Your task to perform on an android device: refresh tabs in the chrome app Image 0: 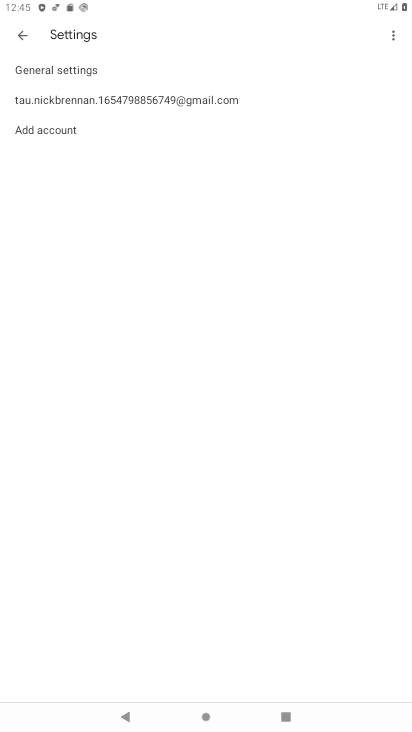
Step 0: press home button
Your task to perform on an android device: refresh tabs in the chrome app Image 1: 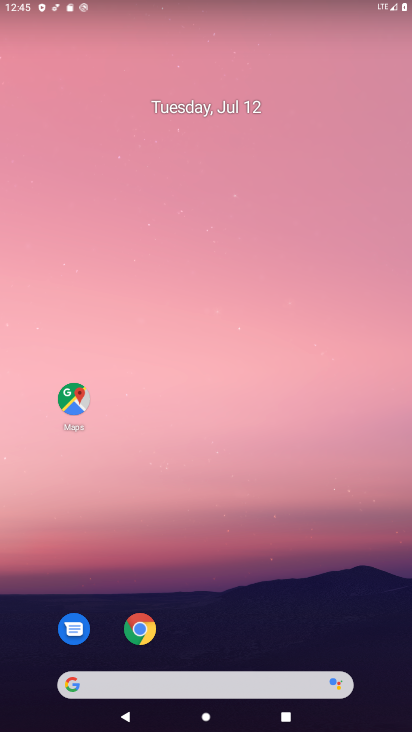
Step 1: click (144, 619)
Your task to perform on an android device: refresh tabs in the chrome app Image 2: 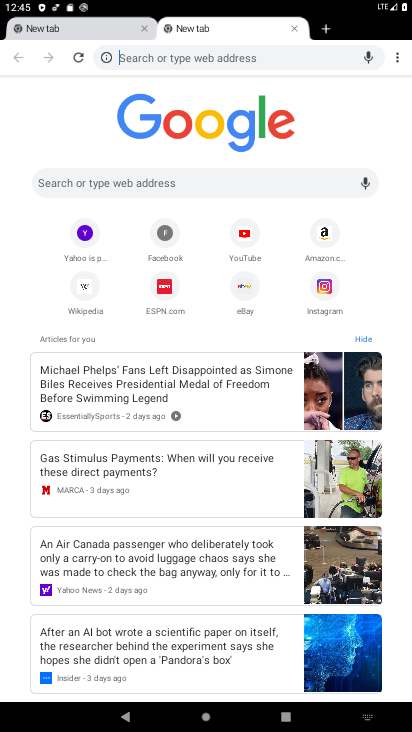
Step 2: click (398, 56)
Your task to perform on an android device: refresh tabs in the chrome app Image 3: 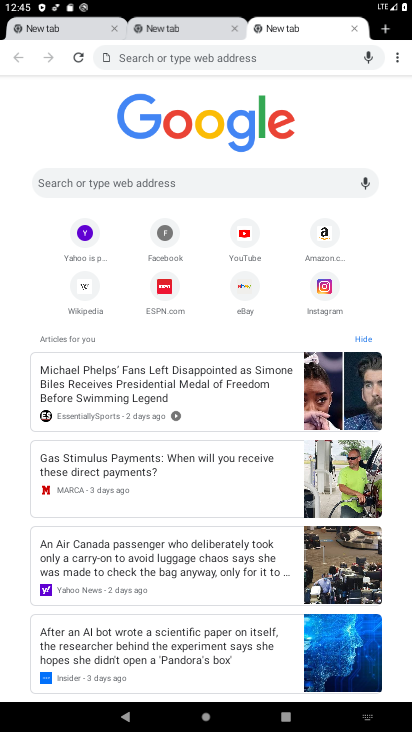
Step 3: click (392, 53)
Your task to perform on an android device: refresh tabs in the chrome app Image 4: 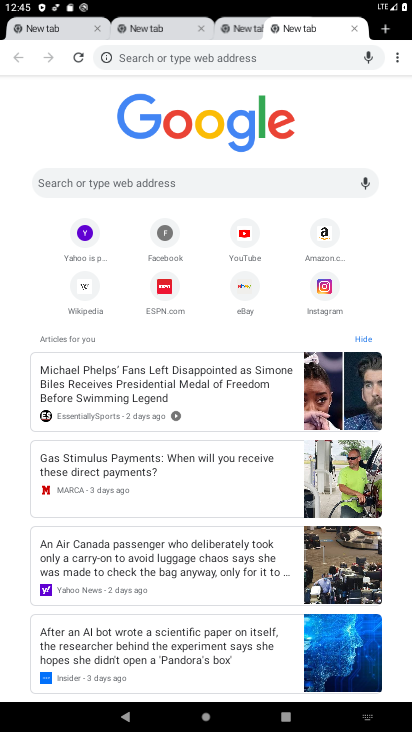
Step 4: click (78, 51)
Your task to perform on an android device: refresh tabs in the chrome app Image 5: 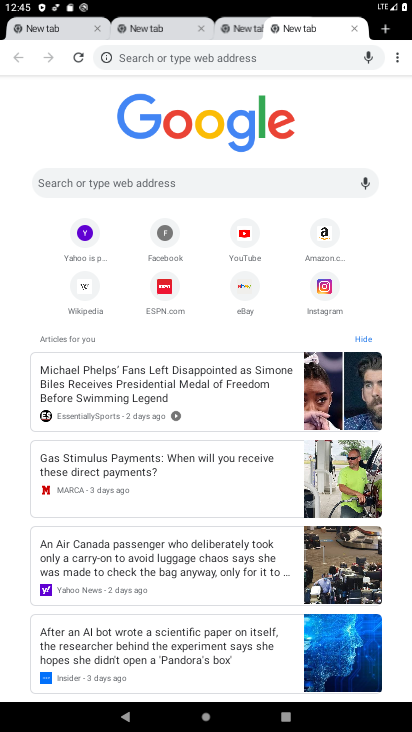
Step 5: click (397, 60)
Your task to perform on an android device: refresh tabs in the chrome app Image 6: 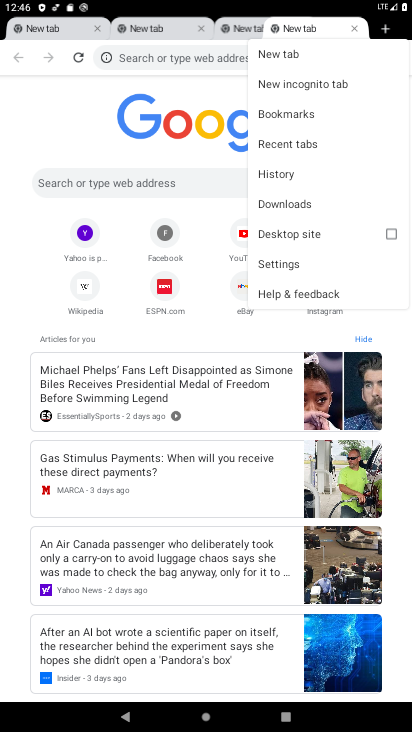
Step 6: click (116, 106)
Your task to perform on an android device: refresh tabs in the chrome app Image 7: 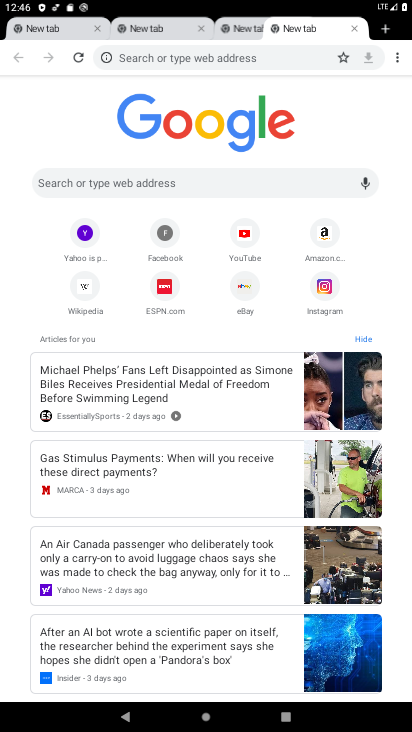
Step 7: task complete